Your task to perform on an android device: turn pop-ups off in chrome Image 0: 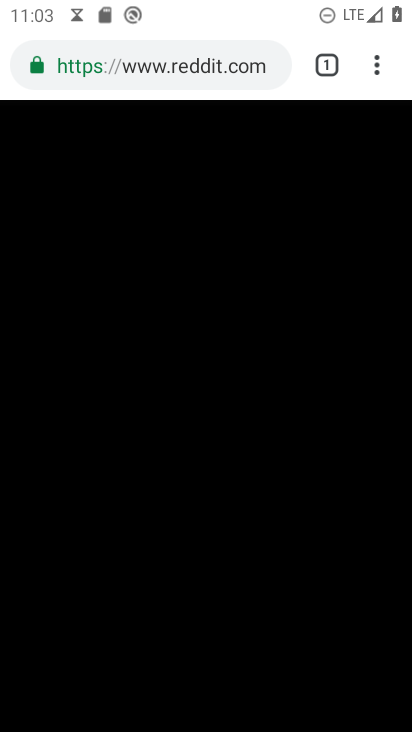
Step 0: press home button
Your task to perform on an android device: turn pop-ups off in chrome Image 1: 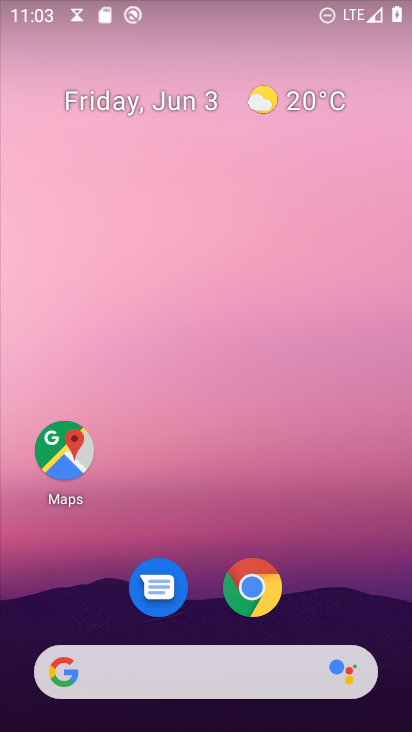
Step 1: click (265, 577)
Your task to perform on an android device: turn pop-ups off in chrome Image 2: 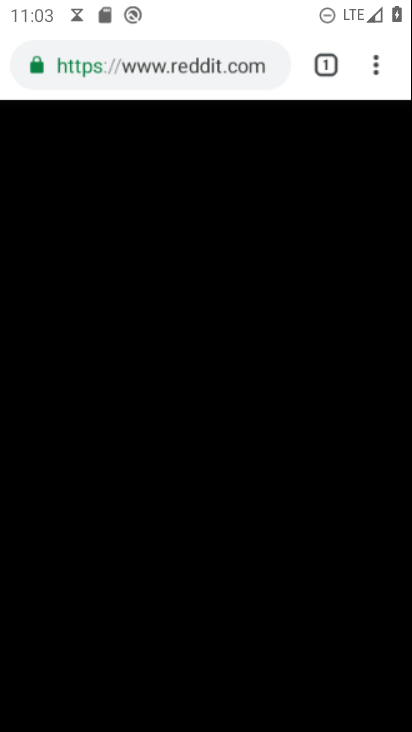
Step 2: click (373, 62)
Your task to perform on an android device: turn pop-ups off in chrome Image 3: 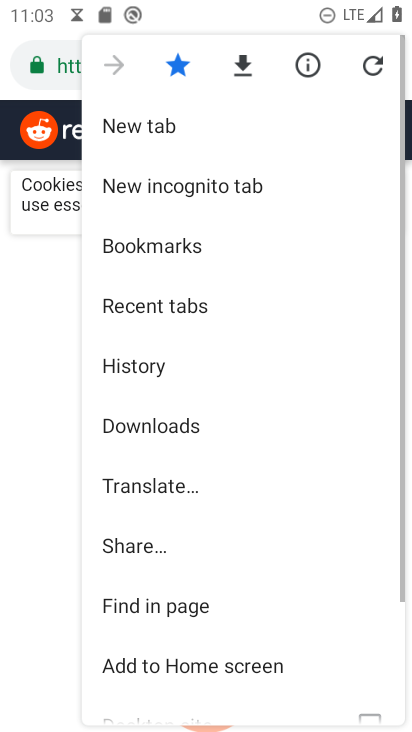
Step 3: drag from (257, 606) to (256, 11)
Your task to perform on an android device: turn pop-ups off in chrome Image 4: 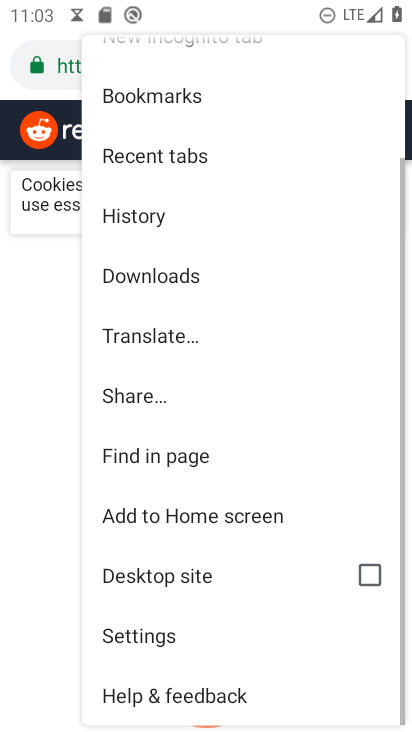
Step 4: click (192, 642)
Your task to perform on an android device: turn pop-ups off in chrome Image 5: 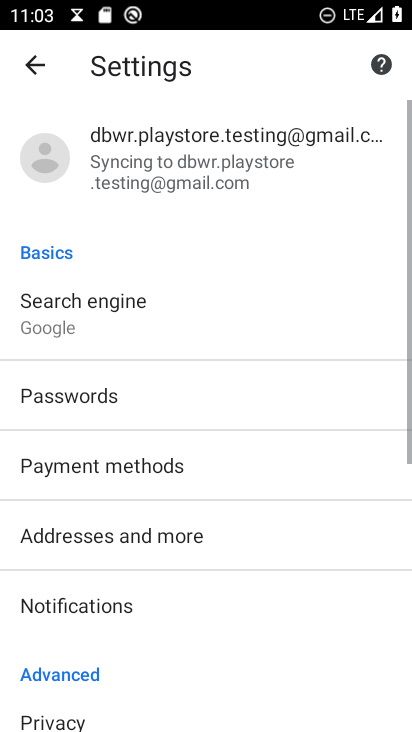
Step 5: drag from (308, 430) to (305, 0)
Your task to perform on an android device: turn pop-ups off in chrome Image 6: 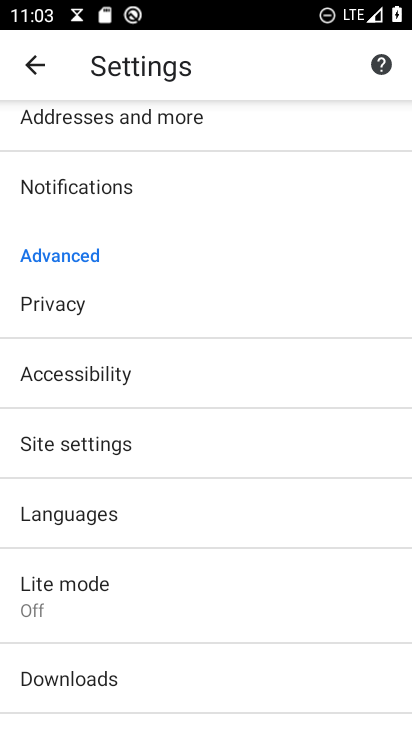
Step 6: click (154, 445)
Your task to perform on an android device: turn pop-ups off in chrome Image 7: 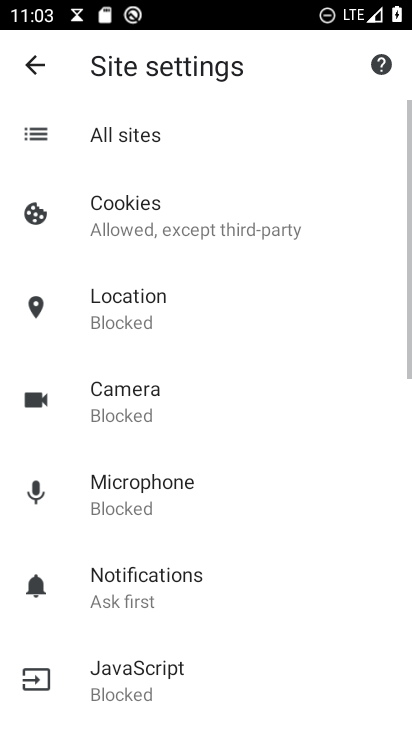
Step 7: drag from (295, 616) to (240, 108)
Your task to perform on an android device: turn pop-ups off in chrome Image 8: 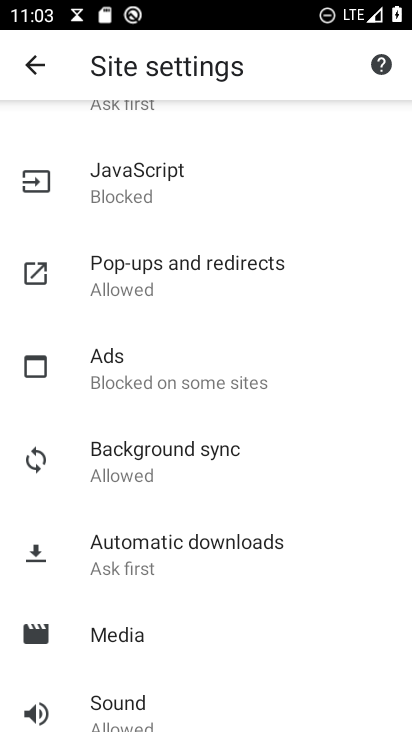
Step 8: click (199, 283)
Your task to perform on an android device: turn pop-ups off in chrome Image 9: 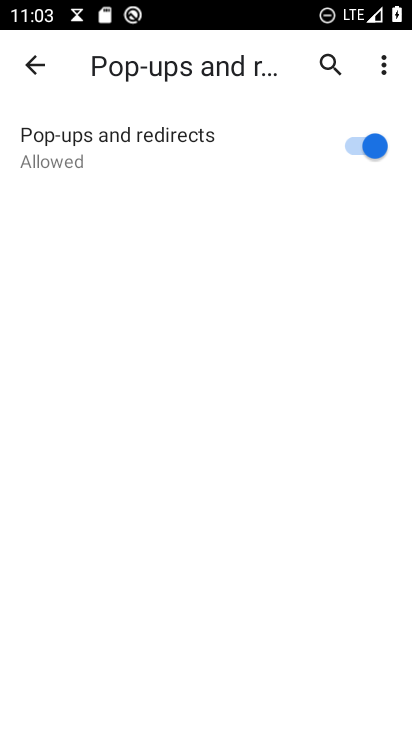
Step 9: click (347, 134)
Your task to perform on an android device: turn pop-ups off in chrome Image 10: 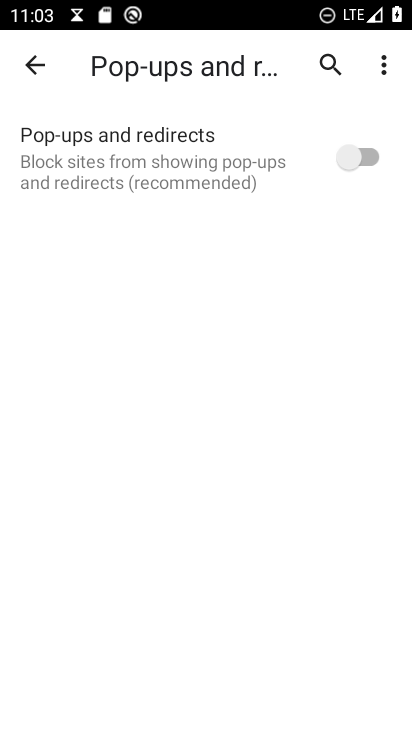
Step 10: task complete